Your task to perform on an android device: see tabs open on other devices in the chrome app Image 0: 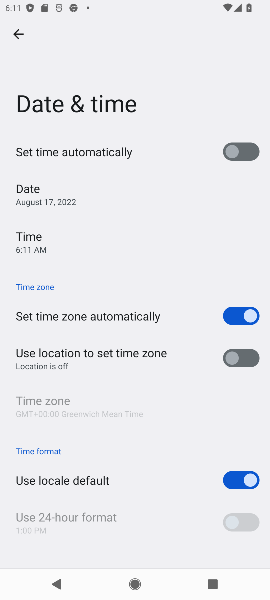
Step 0: press home button
Your task to perform on an android device: see tabs open on other devices in the chrome app Image 1: 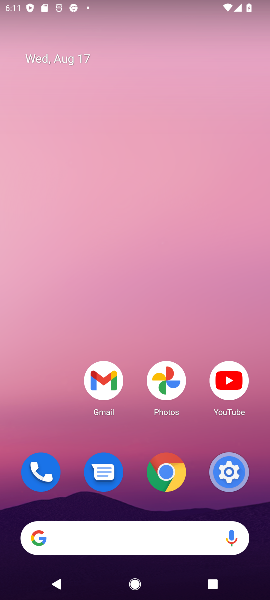
Step 1: click (166, 483)
Your task to perform on an android device: see tabs open on other devices in the chrome app Image 2: 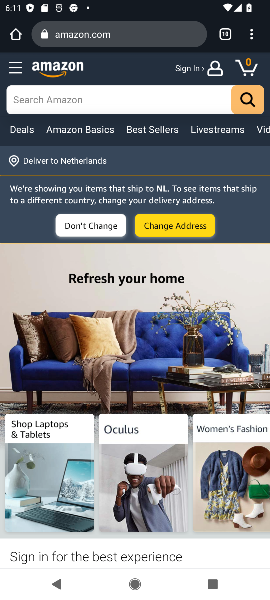
Step 2: click (255, 37)
Your task to perform on an android device: see tabs open on other devices in the chrome app Image 3: 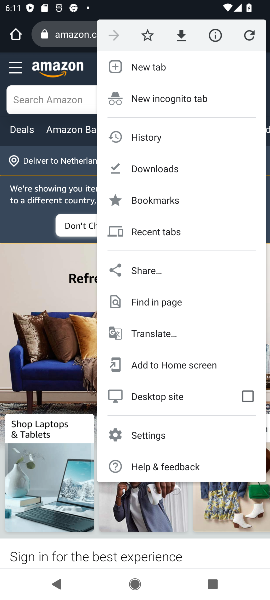
Step 3: click (185, 235)
Your task to perform on an android device: see tabs open on other devices in the chrome app Image 4: 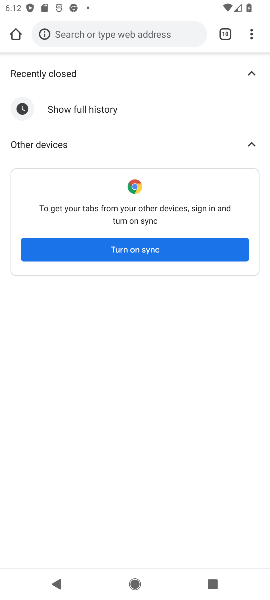
Step 4: task complete